Your task to perform on an android device: toggle javascript in the chrome app Image 0: 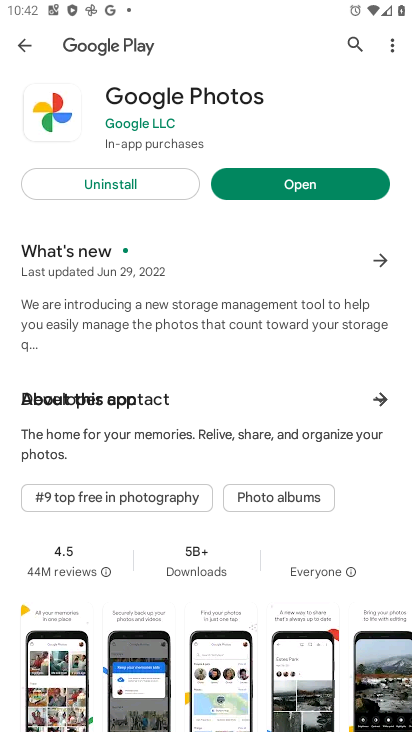
Step 0: press home button
Your task to perform on an android device: toggle javascript in the chrome app Image 1: 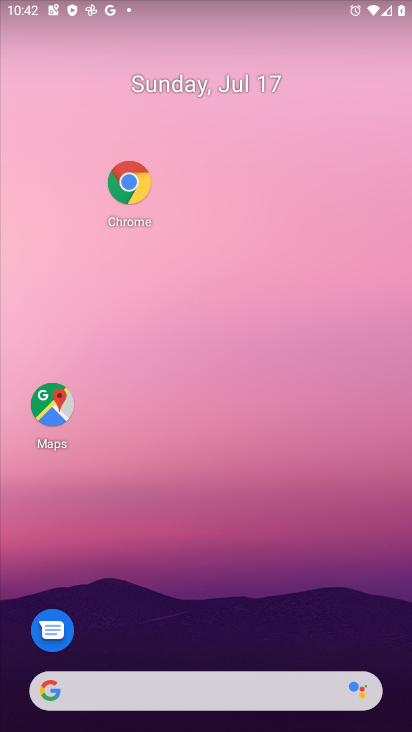
Step 1: click (123, 189)
Your task to perform on an android device: toggle javascript in the chrome app Image 2: 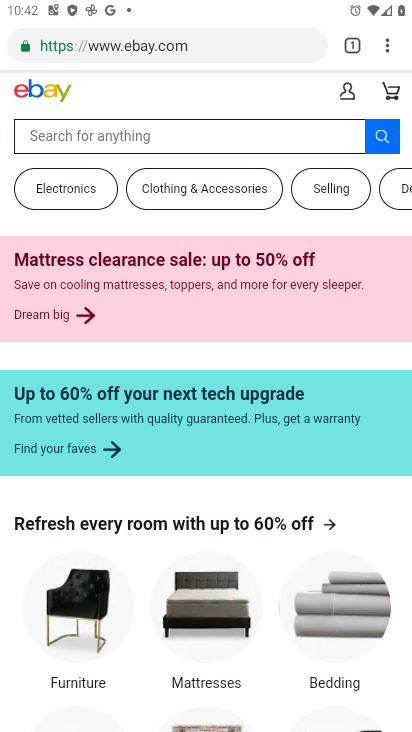
Step 2: click (388, 47)
Your task to perform on an android device: toggle javascript in the chrome app Image 3: 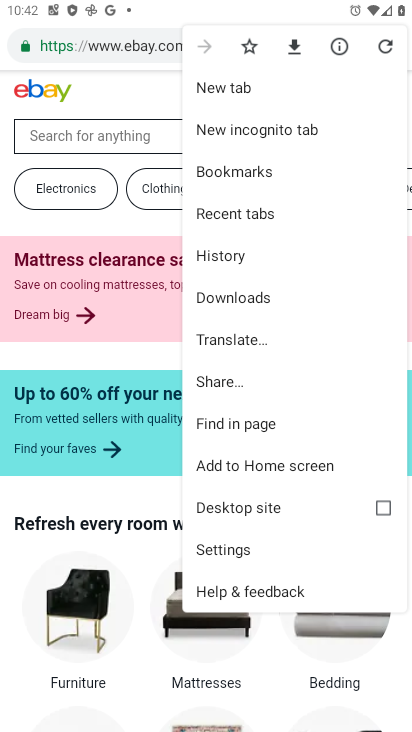
Step 3: click (218, 541)
Your task to perform on an android device: toggle javascript in the chrome app Image 4: 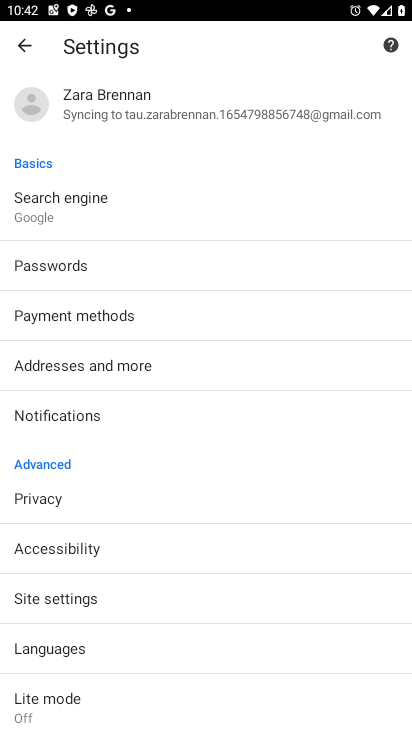
Step 4: click (79, 591)
Your task to perform on an android device: toggle javascript in the chrome app Image 5: 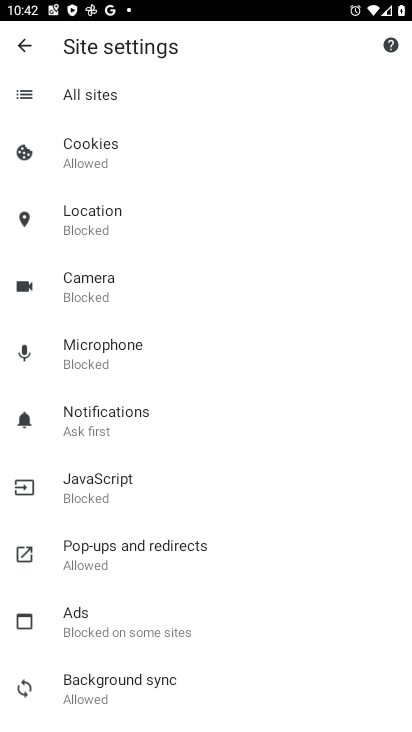
Step 5: click (109, 471)
Your task to perform on an android device: toggle javascript in the chrome app Image 6: 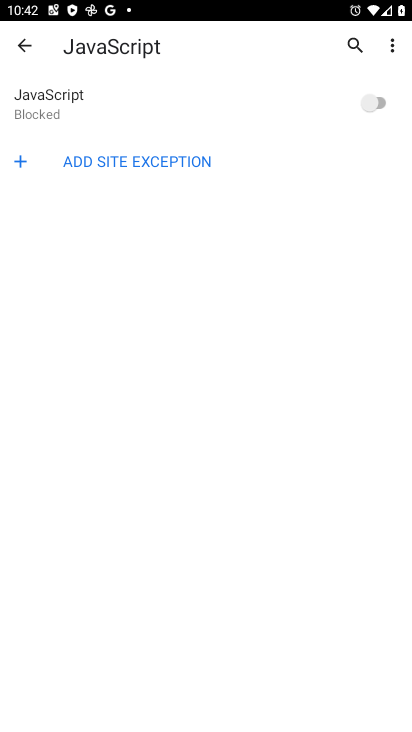
Step 6: click (383, 105)
Your task to perform on an android device: toggle javascript in the chrome app Image 7: 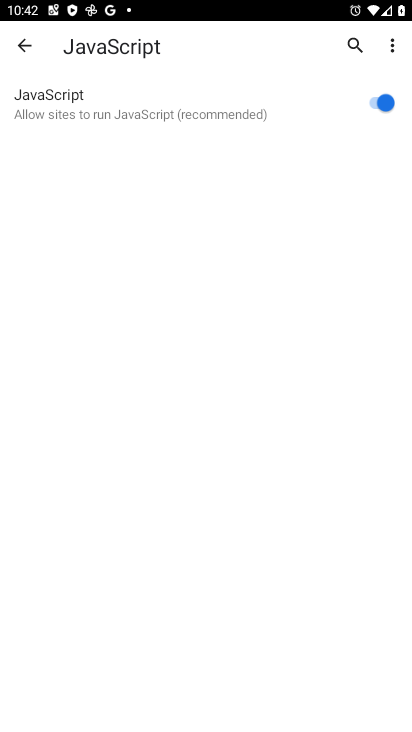
Step 7: task complete